Your task to perform on an android device: What's on my calendar tomorrow? Image 0: 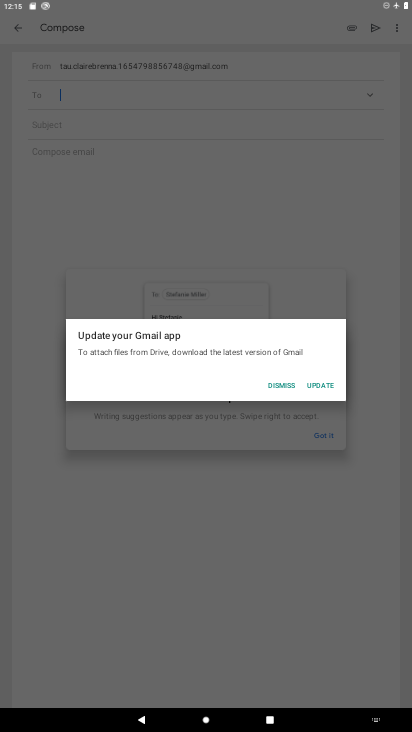
Step 0: press home button
Your task to perform on an android device: What's on my calendar tomorrow? Image 1: 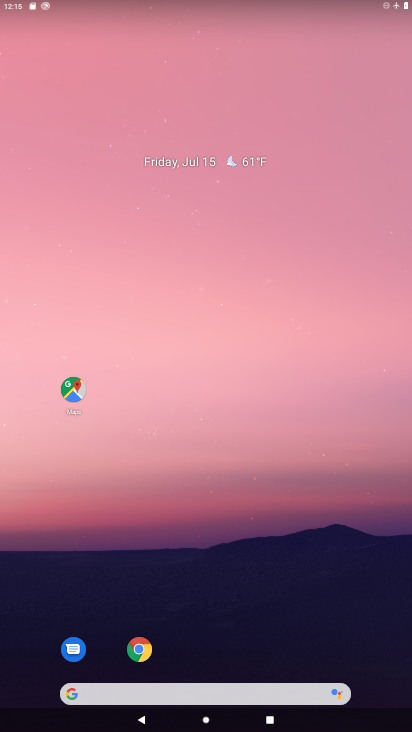
Step 1: drag from (238, 671) to (224, 8)
Your task to perform on an android device: What's on my calendar tomorrow? Image 2: 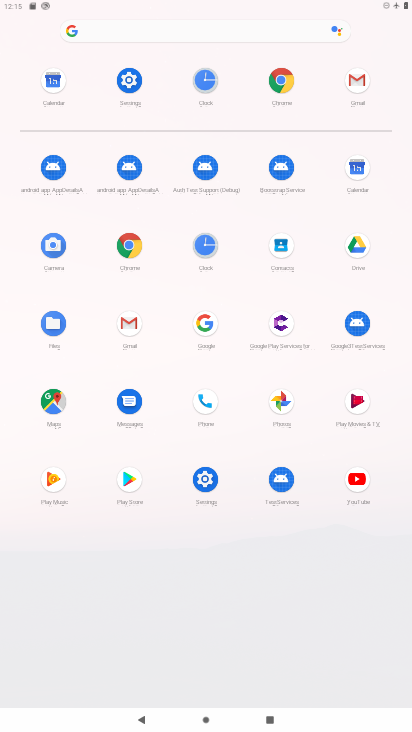
Step 2: click (355, 166)
Your task to perform on an android device: What's on my calendar tomorrow? Image 3: 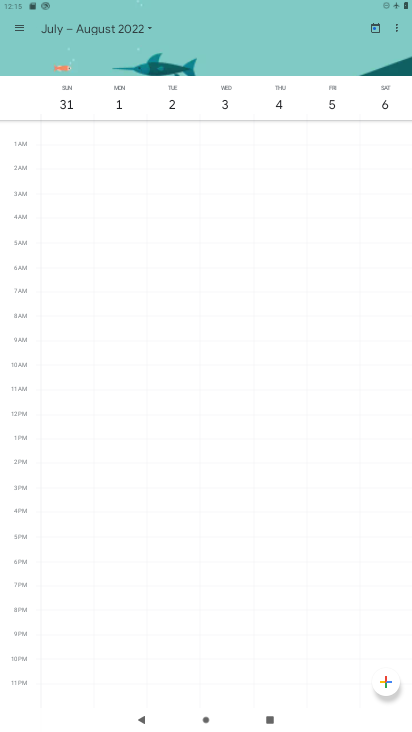
Step 3: click (388, 30)
Your task to perform on an android device: What's on my calendar tomorrow? Image 4: 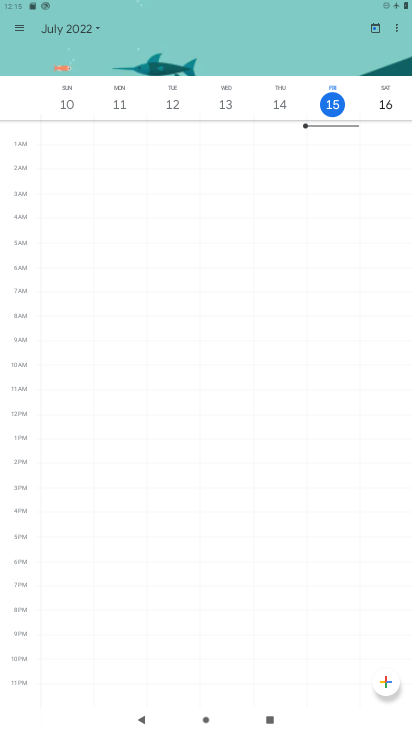
Step 4: click (390, 104)
Your task to perform on an android device: What's on my calendar tomorrow? Image 5: 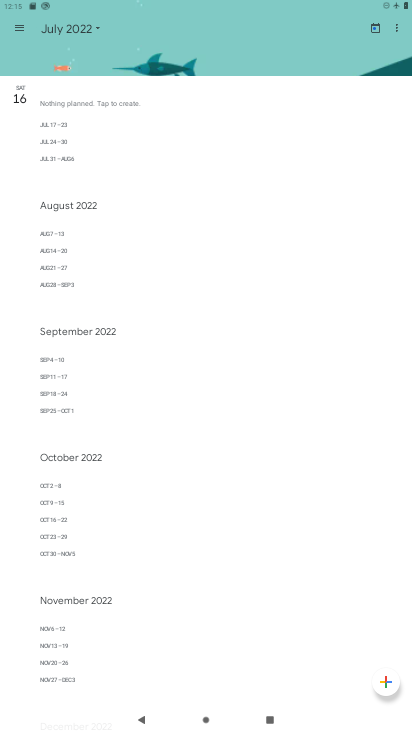
Step 5: click (22, 28)
Your task to perform on an android device: What's on my calendar tomorrow? Image 6: 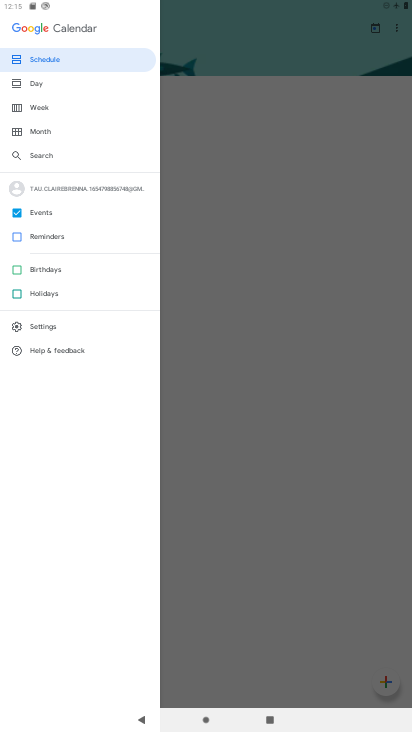
Step 6: click (15, 236)
Your task to perform on an android device: What's on my calendar tomorrow? Image 7: 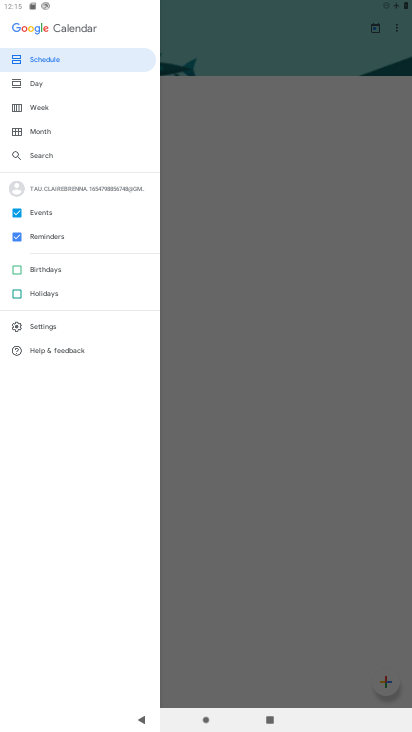
Step 7: click (15, 270)
Your task to perform on an android device: What's on my calendar tomorrow? Image 8: 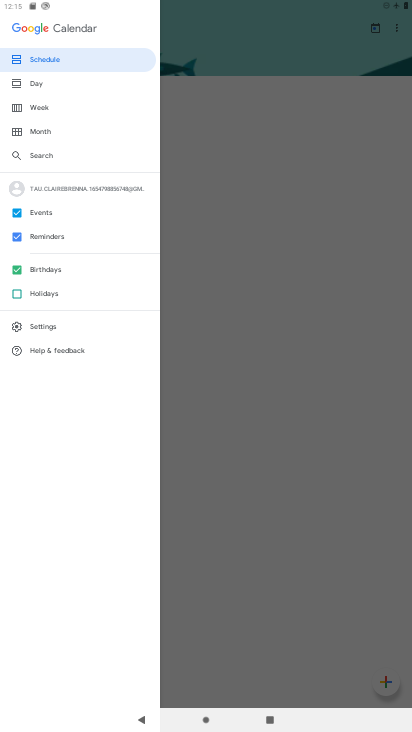
Step 8: click (17, 294)
Your task to perform on an android device: What's on my calendar tomorrow? Image 9: 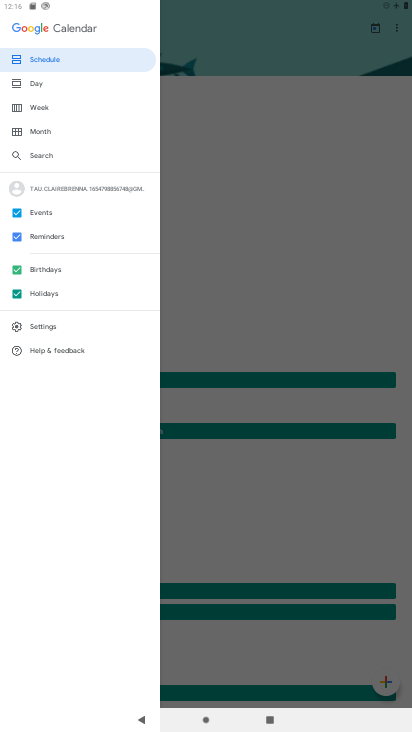
Step 9: click (37, 89)
Your task to perform on an android device: What's on my calendar tomorrow? Image 10: 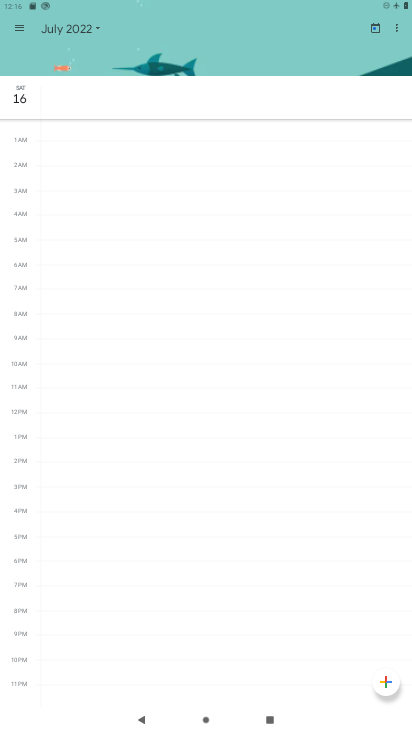
Step 10: task complete